Your task to perform on an android device: check android version Image 0: 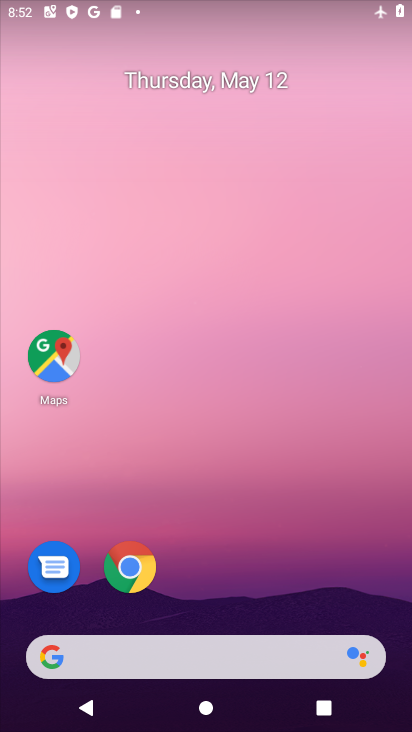
Step 0: drag from (221, 565) to (222, 142)
Your task to perform on an android device: check android version Image 1: 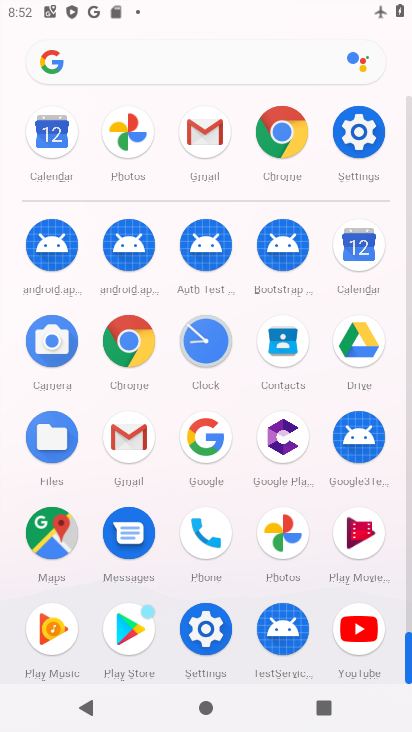
Step 1: click (365, 129)
Your task to perform on an android device: check android version Image 2: 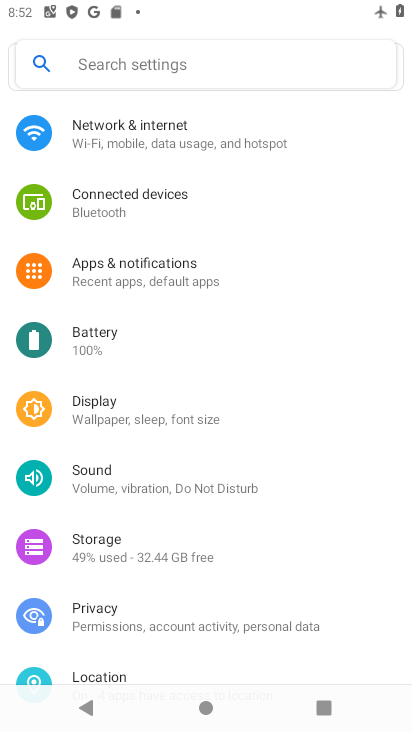
Step 2: drag from (149, 439) to (218, 195)
Your task to perform on an android device: check android version Image 3: 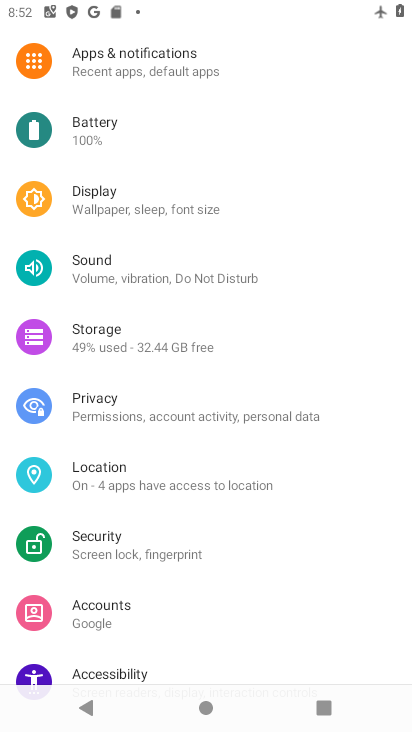
Step 3: drag from (150, 524) to (214, 290)
Your task to perform on an android device: check android version Image 4: 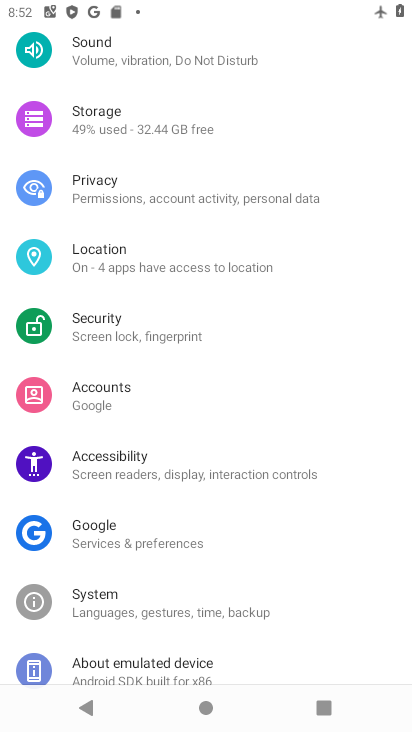
Step 4: drag from (179, 330) to (105, 590)
Your task to perform on an android device: check android version Image 5: 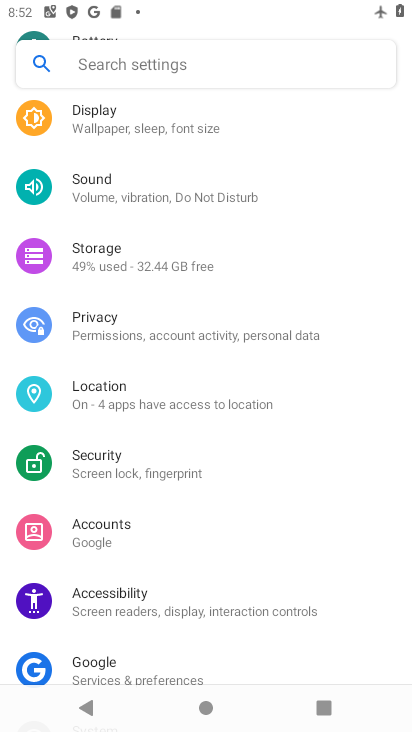
Step 5: drag from (134, 570) to (259, 72)
Your task to perform on an android device: check android version Image 6: 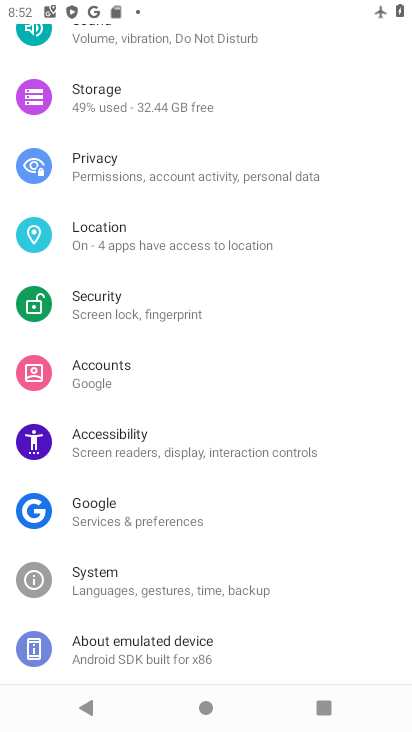
Step 6: click (173, 657)
Your task to perform on an android device: check android version Image 7: 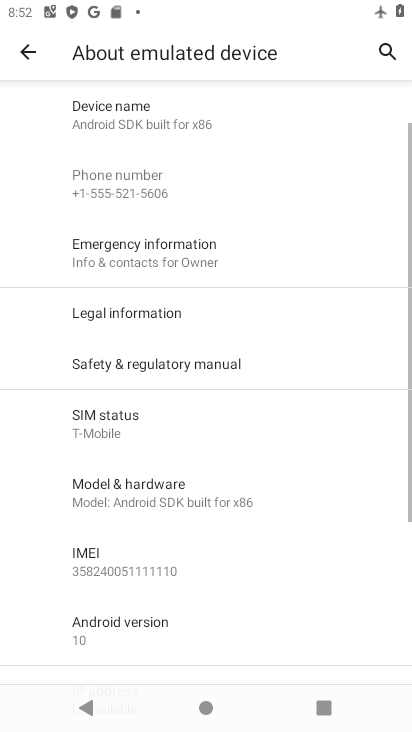
Step 7: drag from (137, 560) to (167, 362)
Your task to perform on an android device: check android version Image 8: 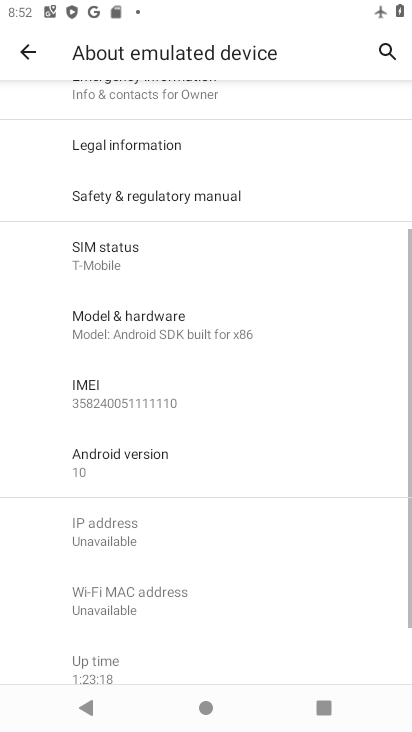
Step 8: click (180, 464)
Your task to perform on an android device: check android version Image 9: 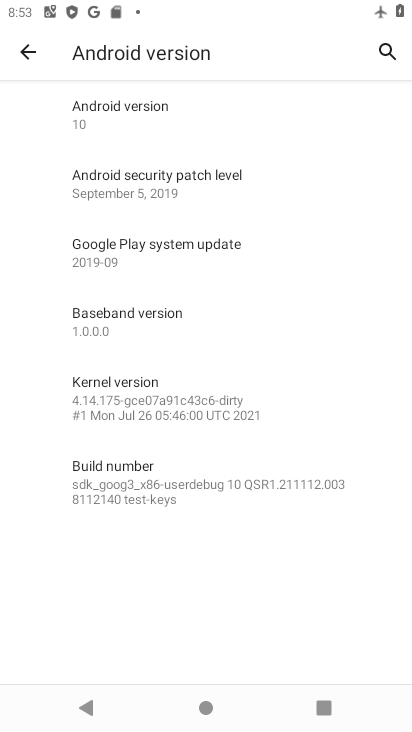
Step 9: task complete